Your task to perform on an android device: Toggle the flashlight Image 0: 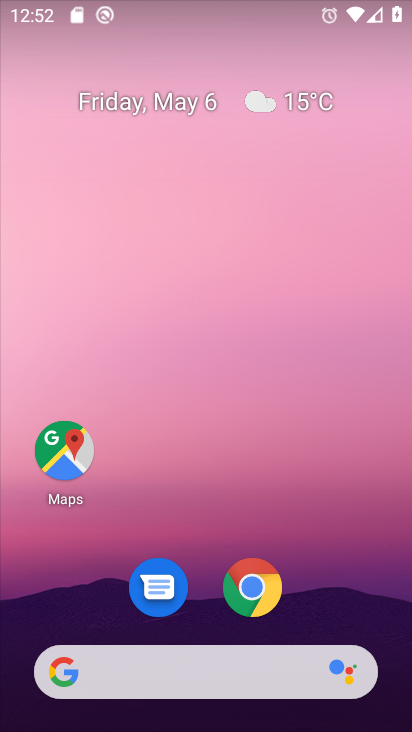
Step 0: drag from (220, 85) to (209, 562)
Your task to perform on an android device: Toggle the flashlight Image 1: 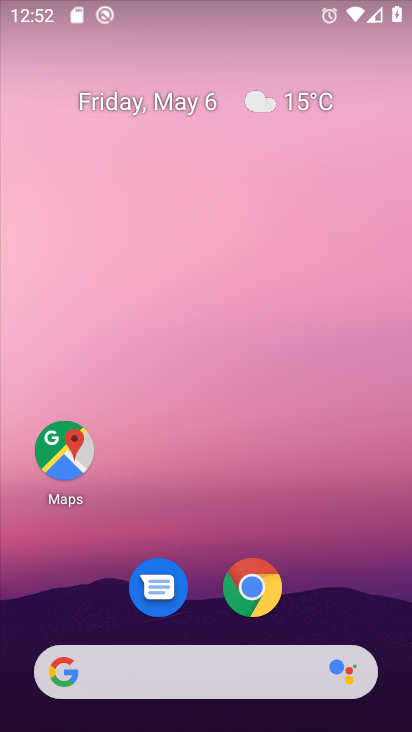
Step 1: task complete